Your task to perform on an android device: open device folders in google photos Image 0: 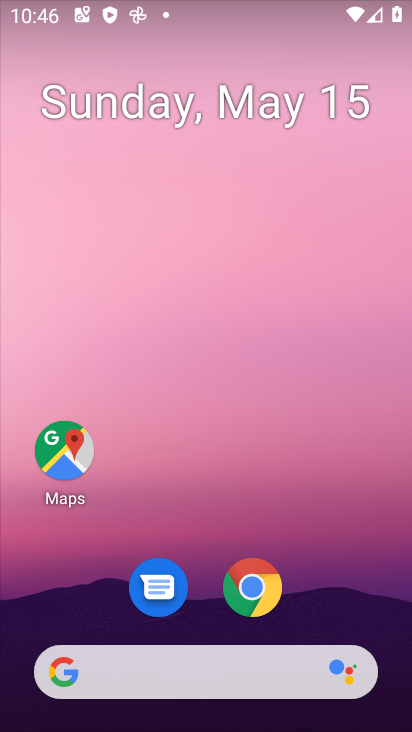
Step 0: drag from (367, 612) to (270, 16)
Your task to perform on an android device: open device folders in google photos Image 1: 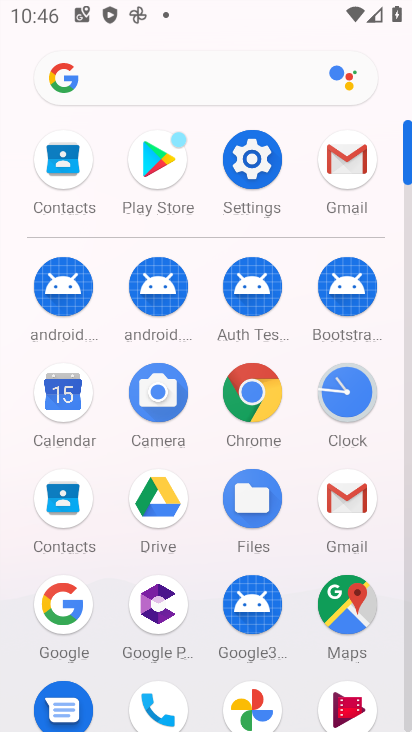
Step 1: click (262, 699)
Your task to perform on an android device: open device folders in google photos Image 2: 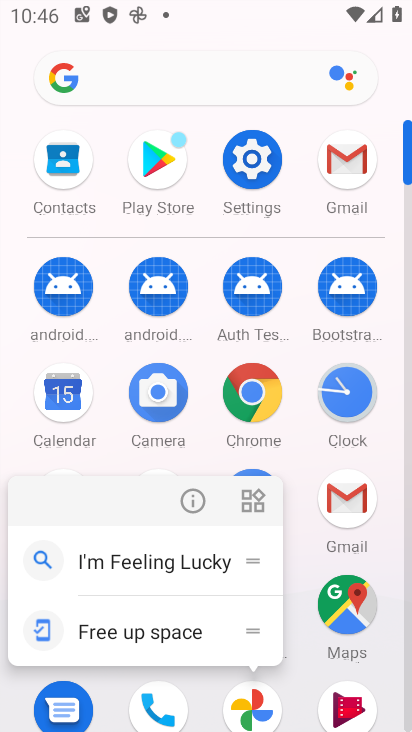
Step 2: click (262, 702)
Your task to perform on an android device: open device folders in google photos Image 3: 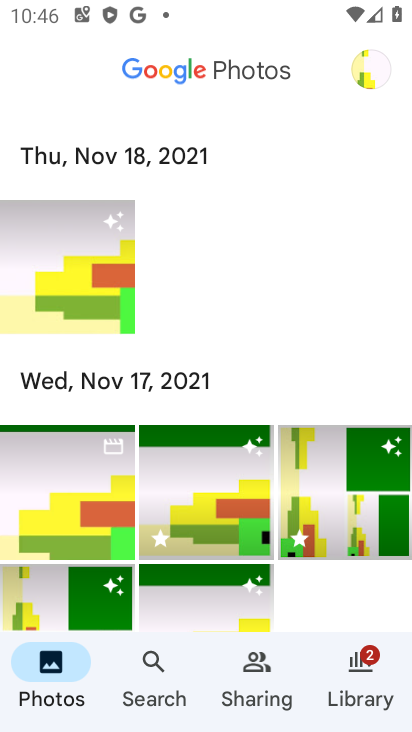
Step 3: task complete